Your task to perform on an android device: Search for pizza restaurants on Maps Image 0: 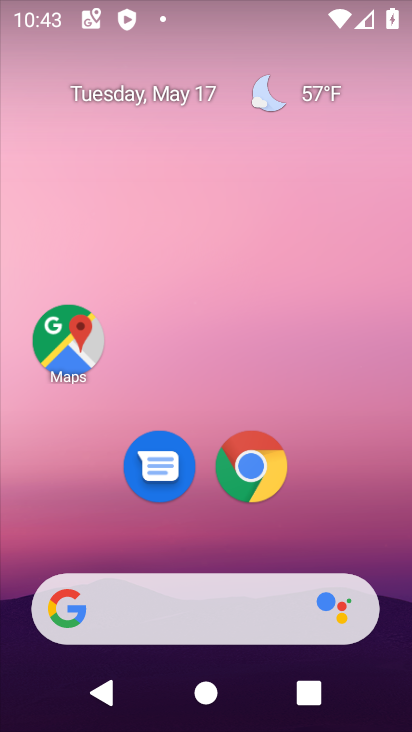
Step 0: drag from (214, 557) to (305, 56)
Your task to perform on an android device: Search for pizza restaurants on Maps Image 1: 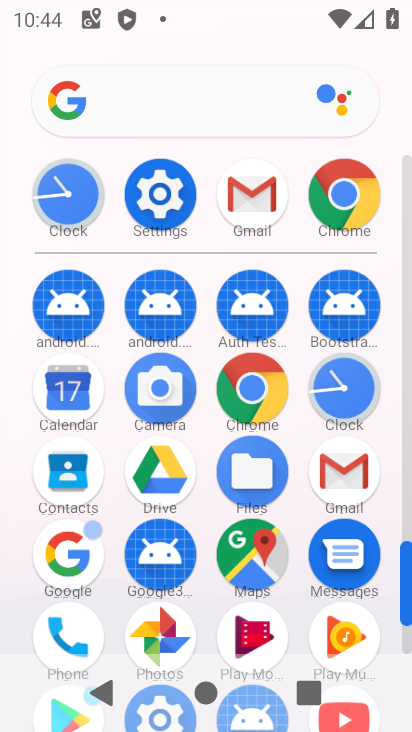
Step 1: click (271, 570)
Your task to perform on an android device: Search for pizza restaurants on Maps Image 2: 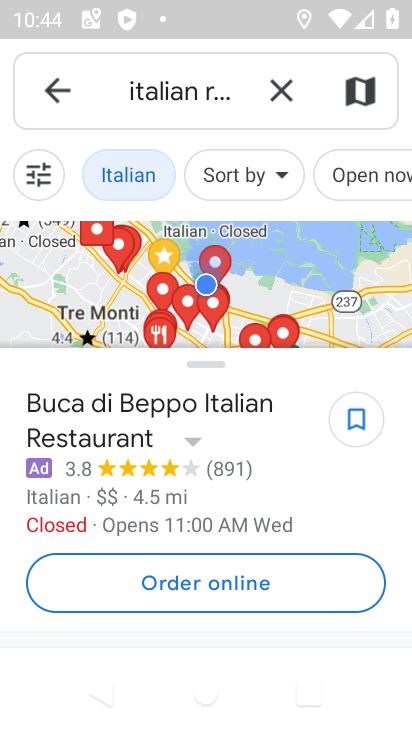
Step 2: click (268, 88)
Your task to perform on an android device: Search for pizza restaurants on Maps Image 3: 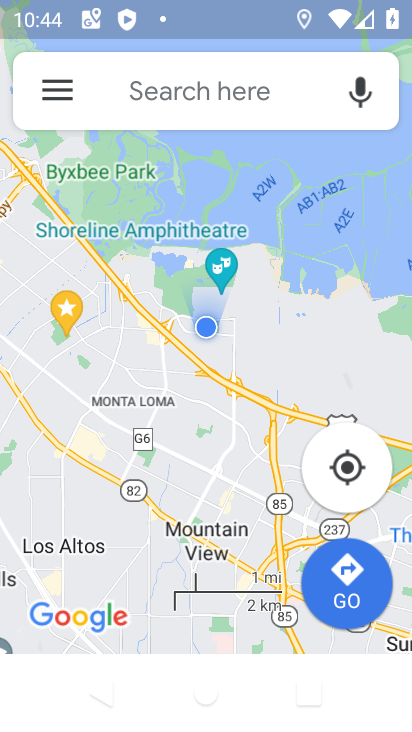
Step 3: click (200, 115)
Your task to perform on an android device: Search for pizza restaurants on Maps Image 4: 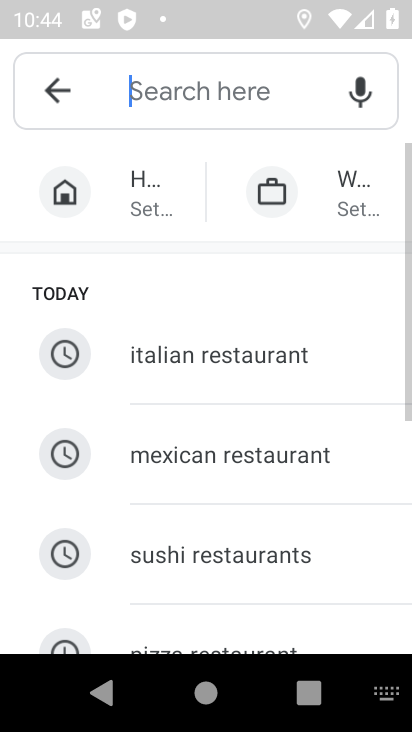
Step 4: drag from (186, 531) to (157, 340)
Your task to perform on an android device: Search for pizza restaurants on Maps Image 5: 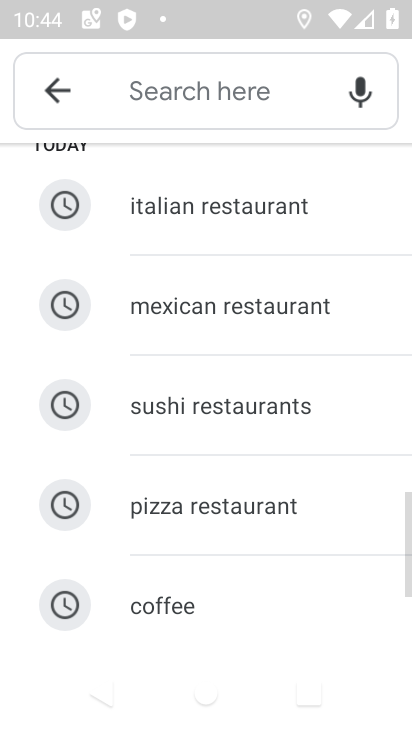
Step 5: click (167, 482)
Your task to perform on an android device: Search for pizza restaurants on Maps Image 6: 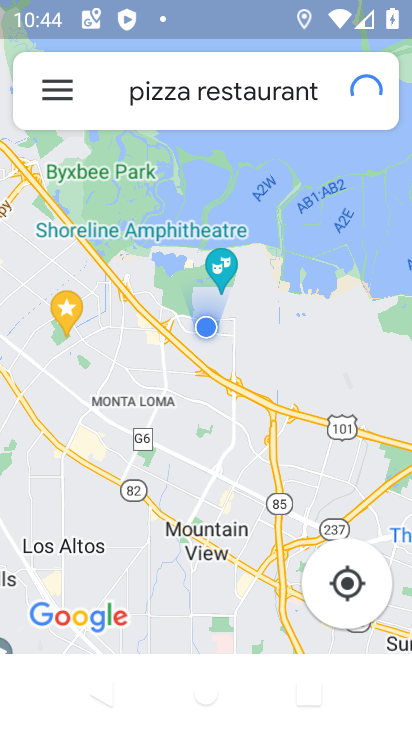
Step 6: task complete